Your task to perform on an android device: check the backup settings in the google photos Image 0: 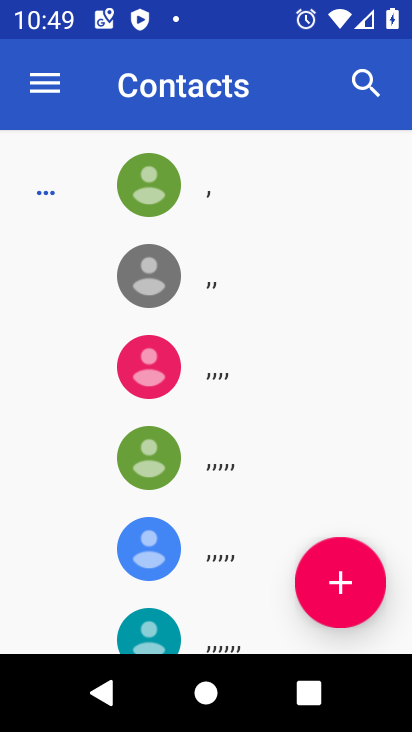
Step 0: press home button
Your task to perform on an android device: check the backup settings in the google photos Image 1: 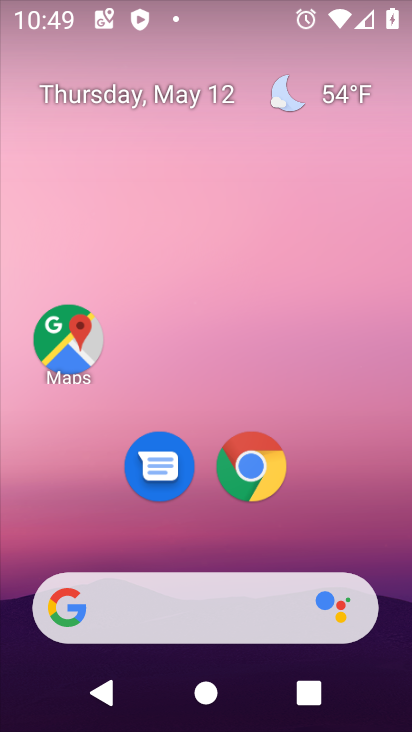
Step 1: drag from (353, 506) to (313, 109)
Your task to perform on an android device: check the backup settings in the google photos Image 2: 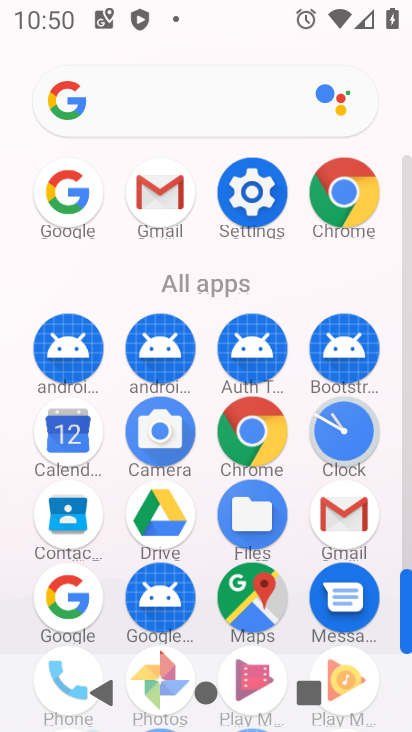
Step 2: drag from (210, 606) to (183, 364)
Your task to perform on an android device: check the backup settings in the google photos Image 3: 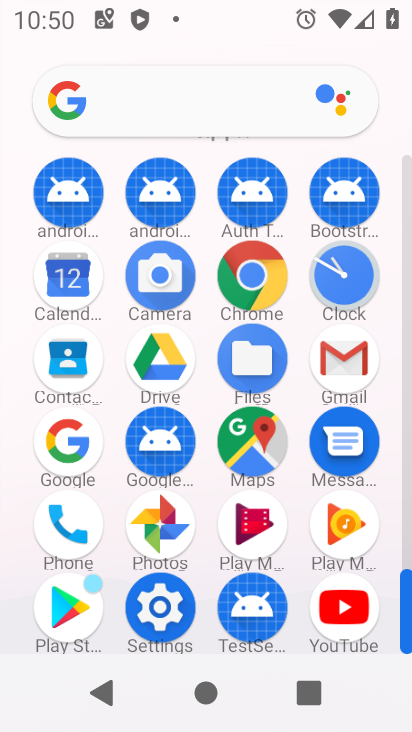
Step 3: click (146, 554)
Your task to perform on an android device: check the backup settings in the google photos Image 4: 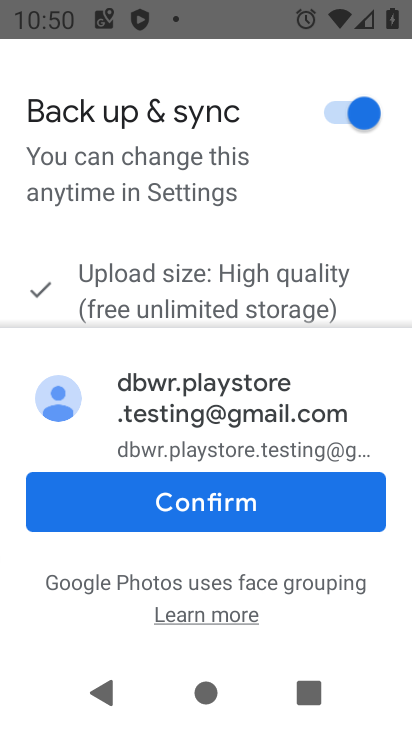
Step 4: click (212, 500)
Your task to perform on an android device: check the backup settings in the google photos Image 5: 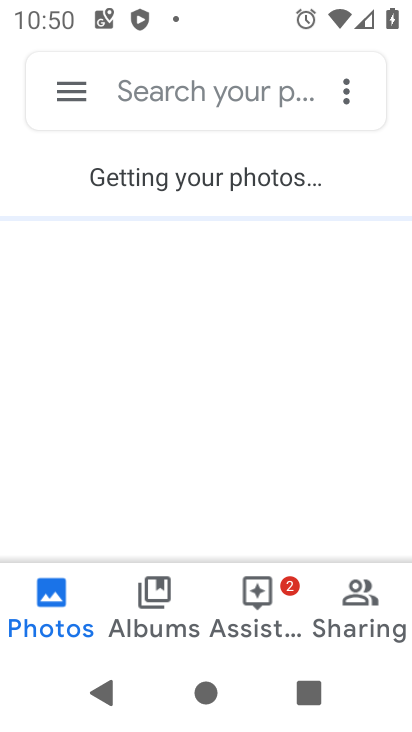
Step 5: click (73, 105)
Your task to perform on an android device: check the backup settings in the google photos Image 6: 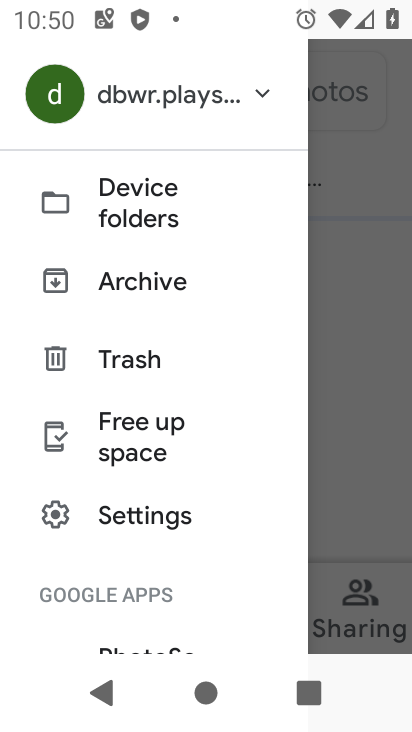
Step 6: click (172, 517)
Your task to perform on an android device: check the backup settings in the google photos Image 7: 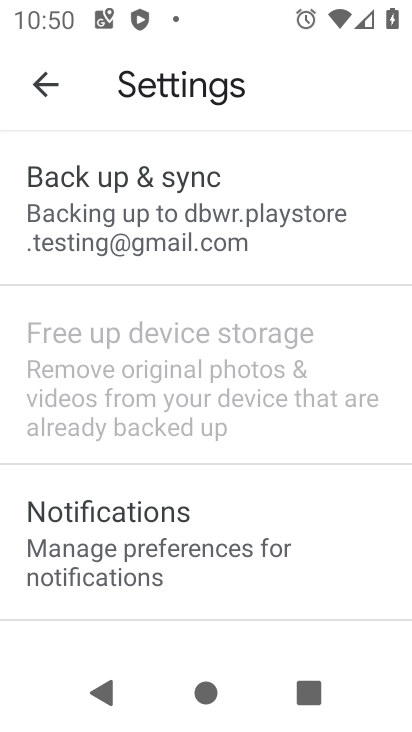
Step 7: click (149, 193)
Your task to perform on an android device: check the backup settings in the google photos Image 8: 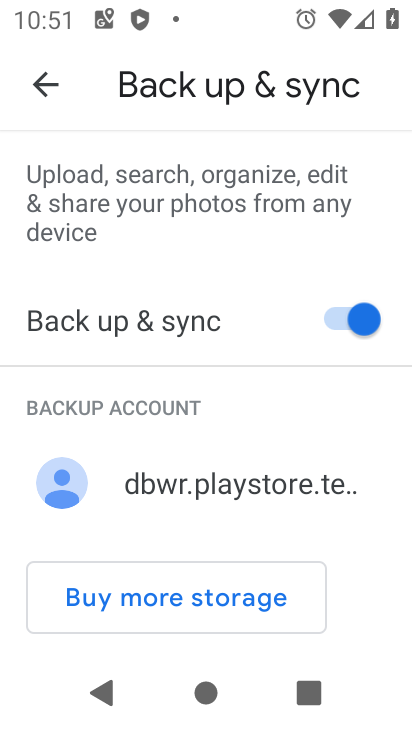
Step 8: task complete